Your task to perform on an android device: Open Google Chrome Image 0: 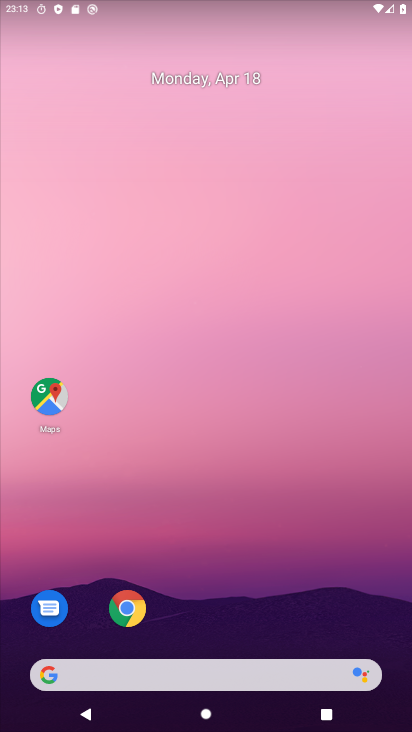
Step 0: click (126, 607)
Your task to perform on an android device: Open Google Chrome Image 1: 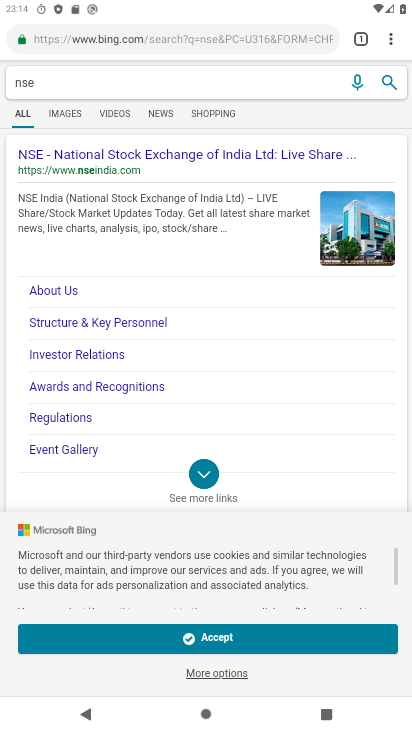
Step 1: task complete